Your task to perform on an android device: Go to Yahoo.com Image 0: 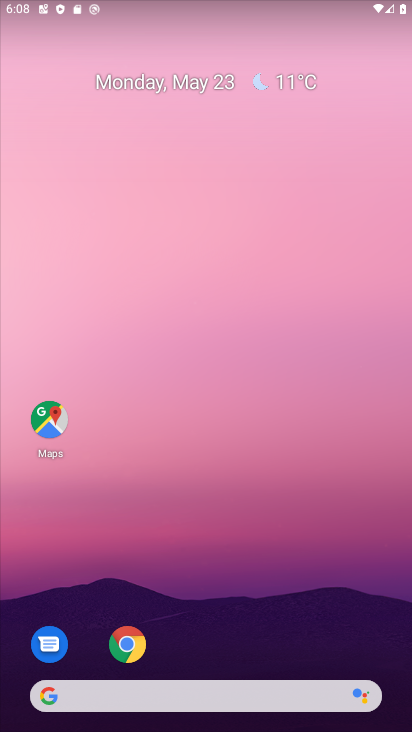
Step 0: drag from (203, 383) to (219, 249)
Your task to perform on an android device: Go to Yahoo.com Image 1: 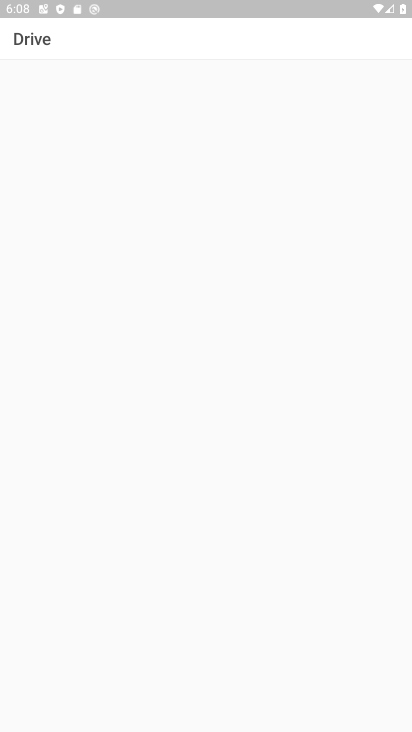
Step 1: press home button
Your task to perform on an android device: Go to Yahoo.com Image 2: 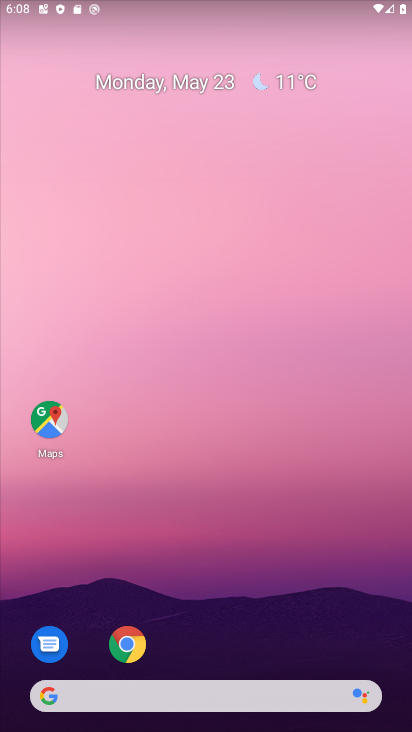
Step 2: click (126, 658)
Your task to perform on an android device: Go to Yahoo.com Image 3: 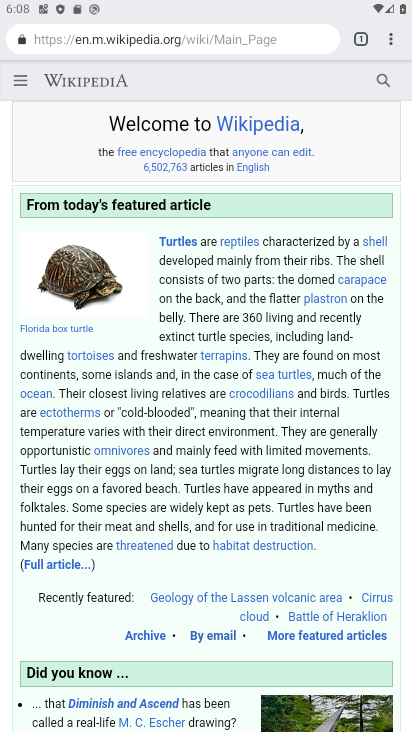
Step 3: press back button
Your task to perform on an android device: Go to Yahoo.com Image 4: 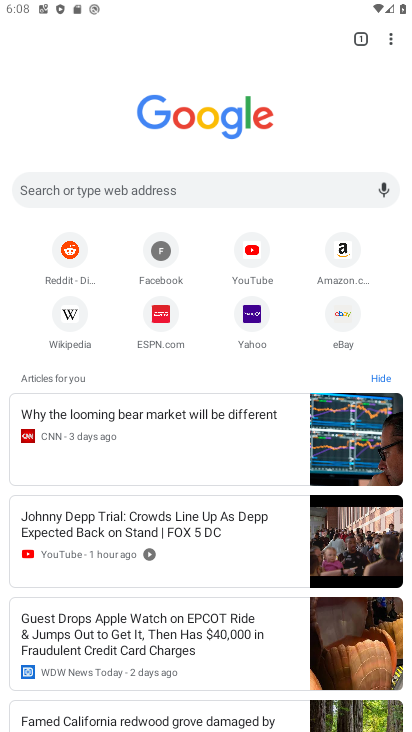
Step 4: click (247, 321)
Your task to perform on an android device: Go to Yahoo.com Image 5: 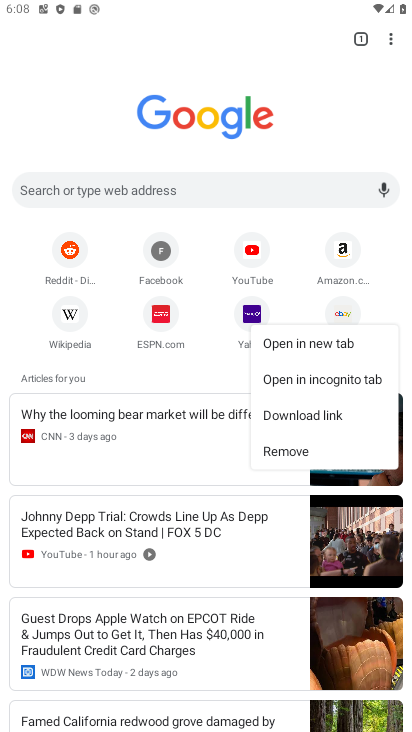
Step 5: click (250, 314)
Your task to perform on an android device: Go to Yahoo.com Image 6: 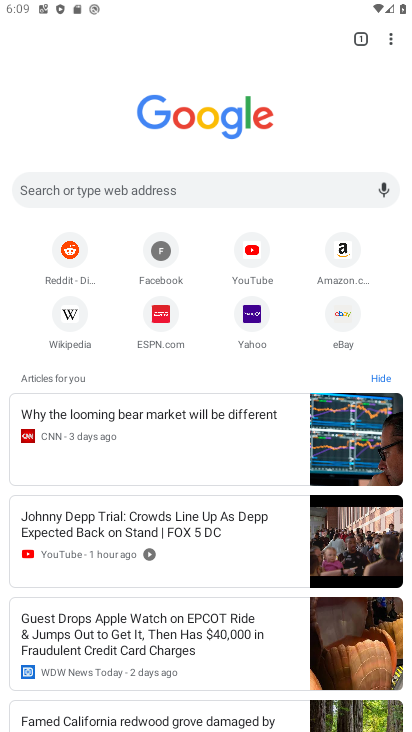
Step 6: click (250, 328)
Your task to perform on an android device: Go to Yahoo.com Image 7: 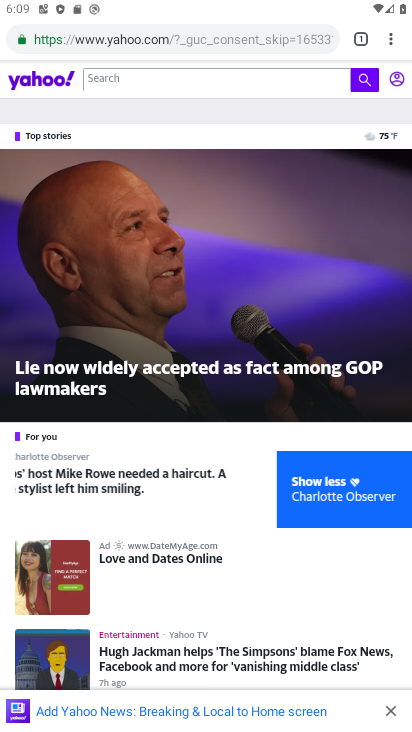
Step 7: task complete